Your task to perform on an android device: star an email in the gmail app Image 0: 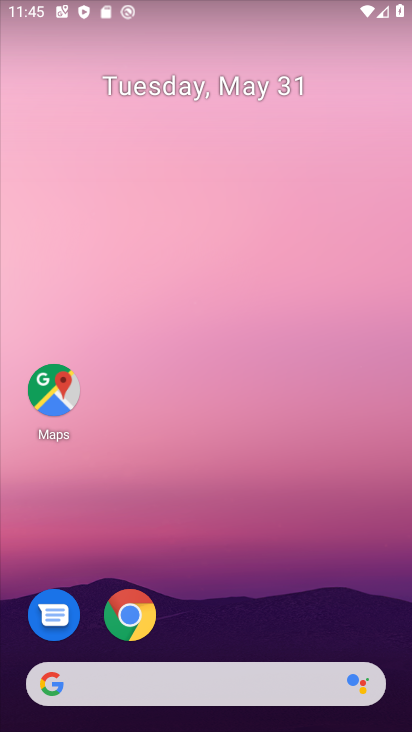
Step 0: task complete